Your task to perform on an android device: empty trash in the gmail app Image 0: 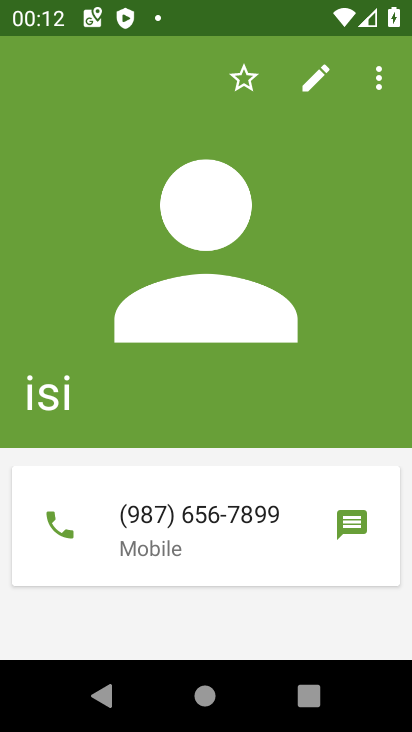
Step 0: press home button
Your task to perform on an android device: empty trash in the gmail app Image 1: 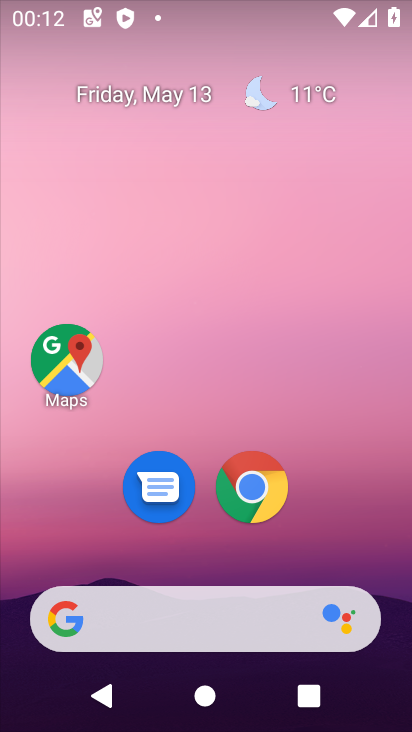
Step 1: drag from (221, 533) to (245, 36)
Your task to perform on an android device: empty trash in the gmail app Image 2: 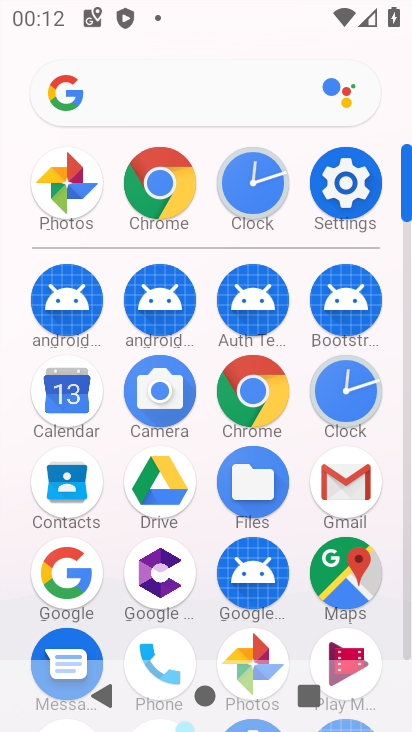
Step 2: click (340, 469)
Your task to perform on an android device: empty trash in the gmail app Image 3: 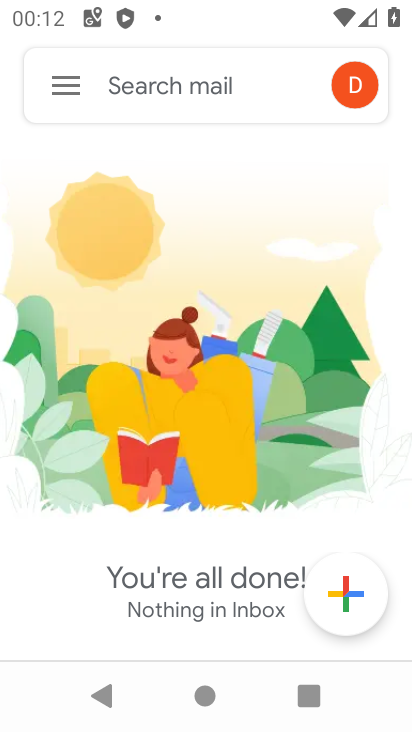
Step 3: click (15, 82)
Your task to perform on an android device: empty trash in the gmail app Image 4: 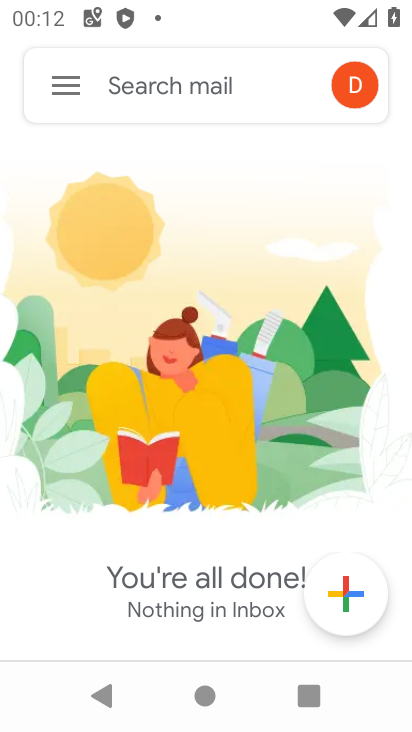
Step 4: click (57, 91)
Your task to perform on an android device: empty trash in the gmail app Image 5: 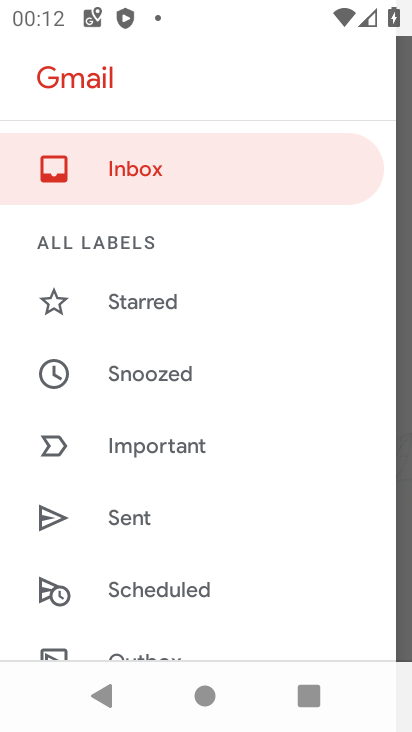
Step 5: drag from (199, 528) to (208, 201)
Your task to perform on an android device: empty trash in the gmail app Image 6: 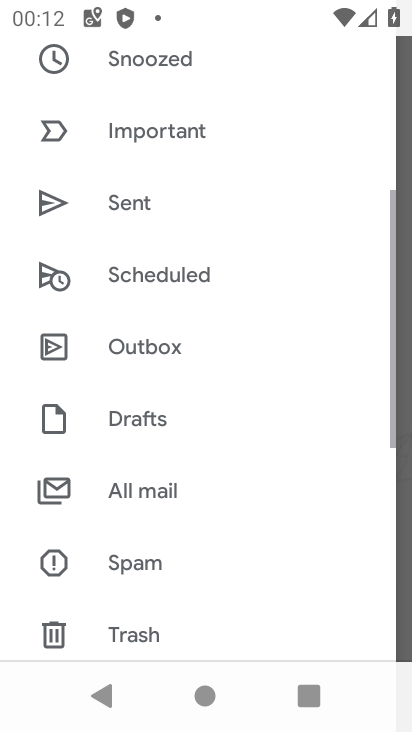
Step 6: drag from (153, 520) to (174, 231)
Your task to perform on an android device: empty trash in the gmail app Image 7: 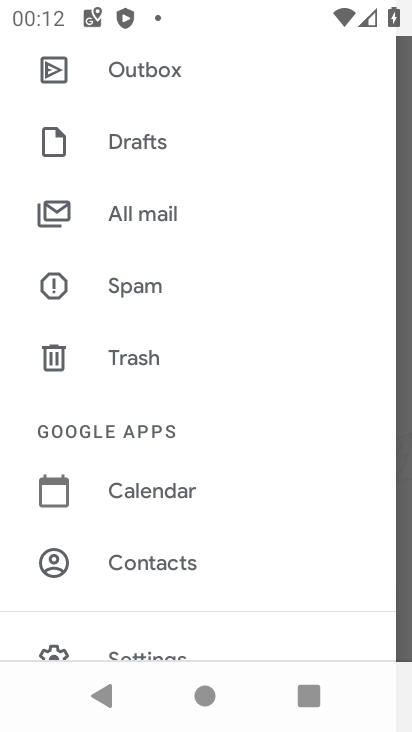
Step 7: click (157, 344)
Your task to perform on an android device: empty trash in the gmail app Image 8: 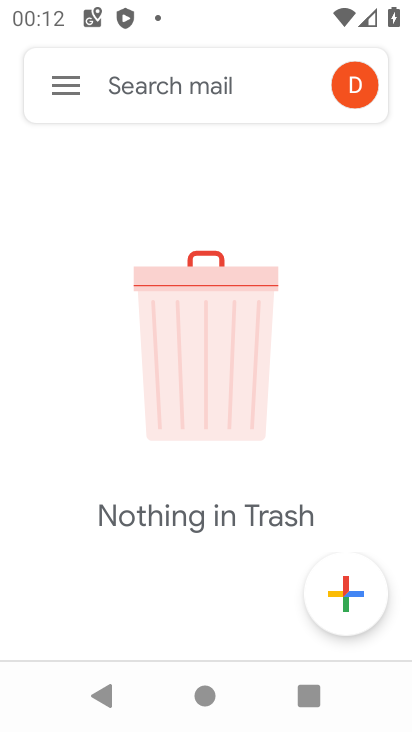
Step 8: task complete